Your task to perform on an android device: Set an alarm for 3pm Image 0: 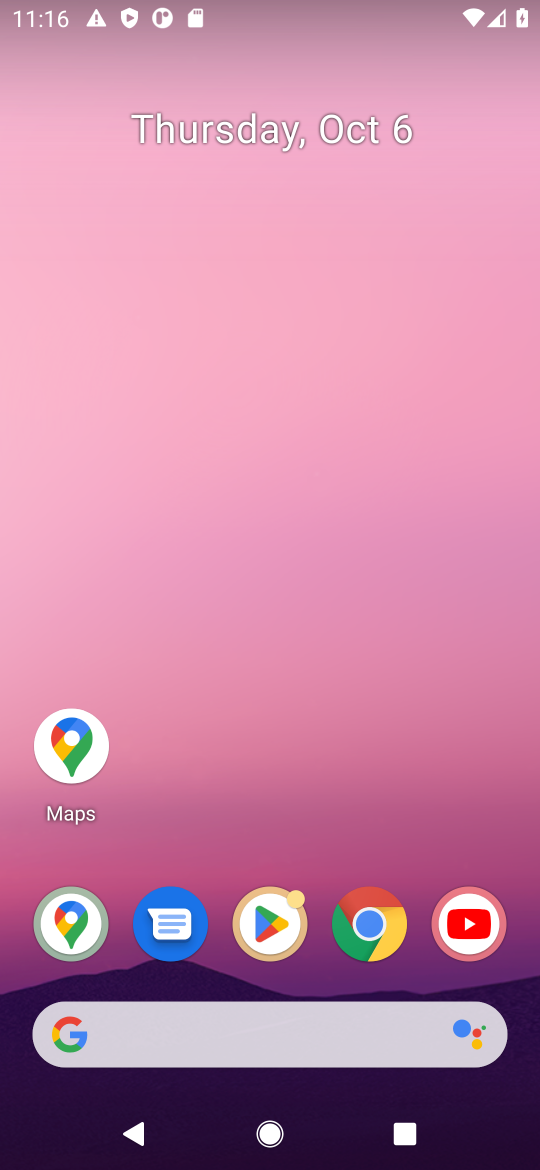
Step 0: drag from (299, 1050) to (485, 236)
Your task to perform on an android device: Set an alarm for 3pm Image 1: 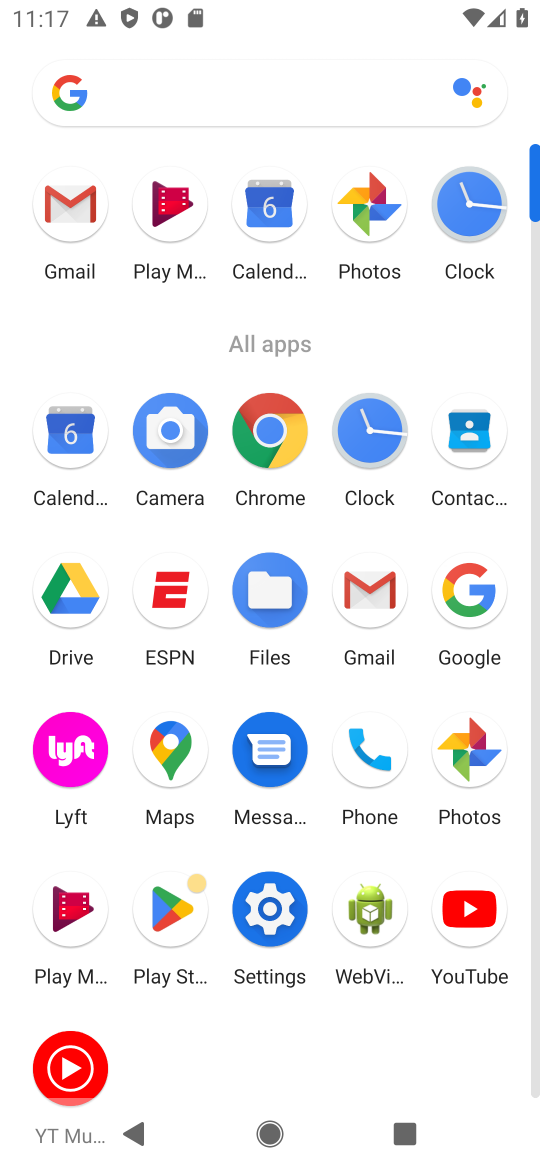
Step 1: click (370, 442)
Your task to perform on an android device: Set an alarm for 3pm Image 2: 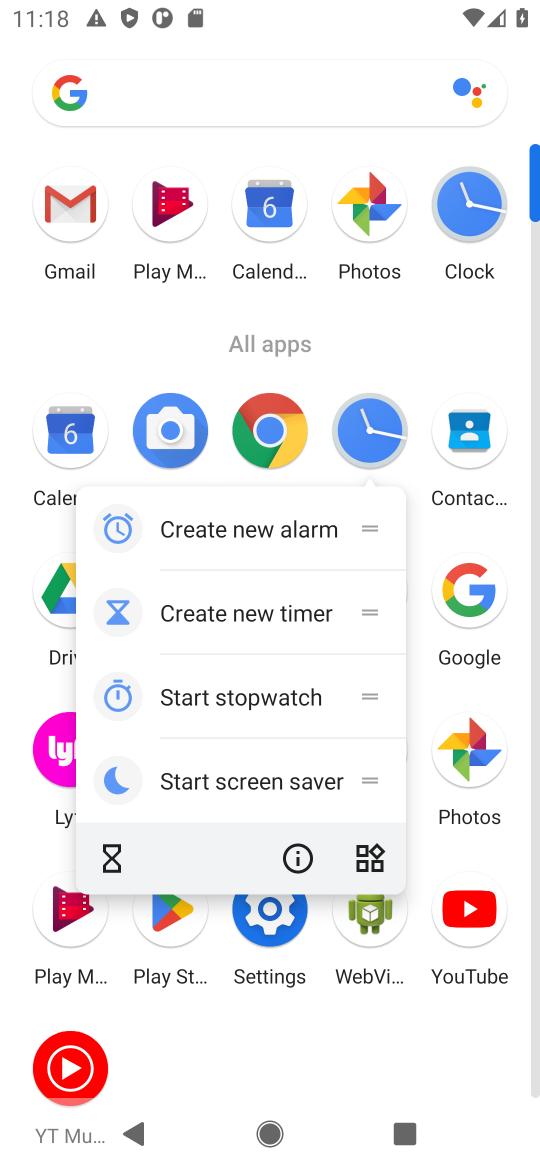
Step 2: click (372, 426)
Your task to perform on an android device: Set an alarm for 3pm Image 3: 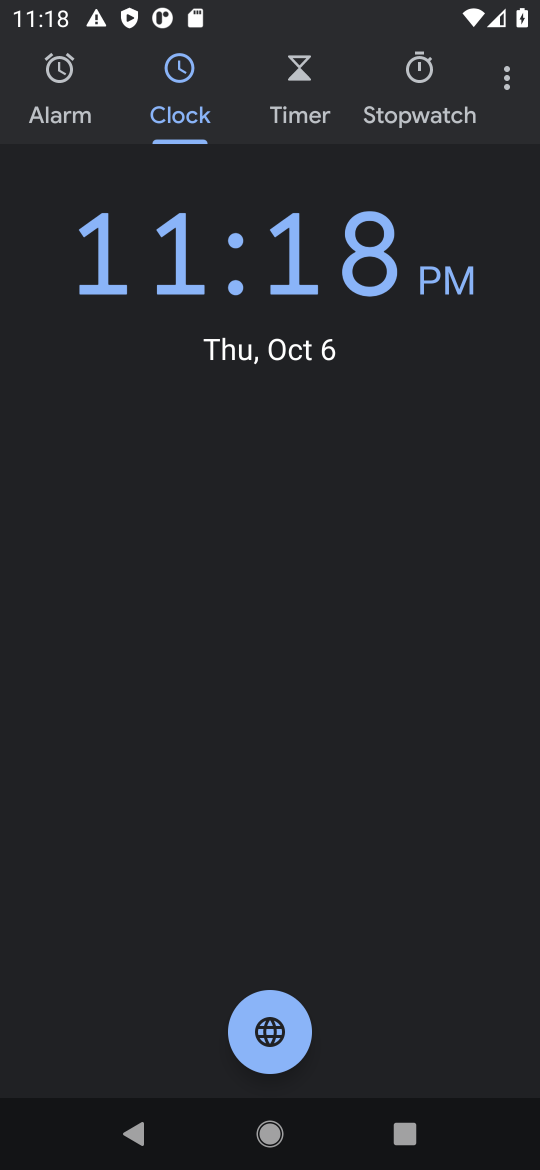
Step 3: click (75, 97)
Your task to perform on an android device: Set an alarm for 3pm Image 4: 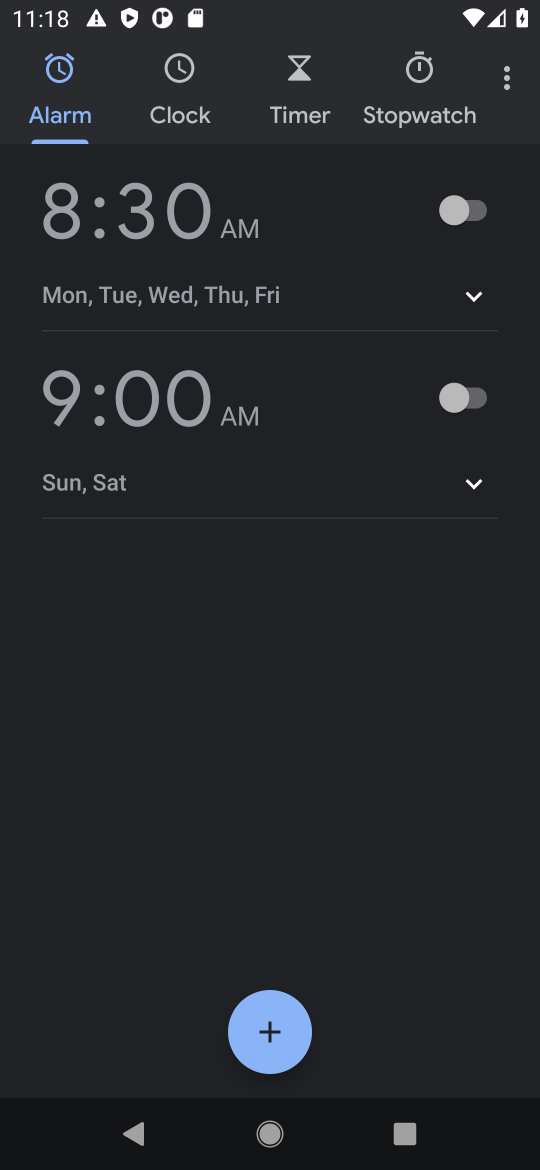
Step 4: click (125, 255)
Your task to perform on an android device: Set an alarm for 3pm Image 5: 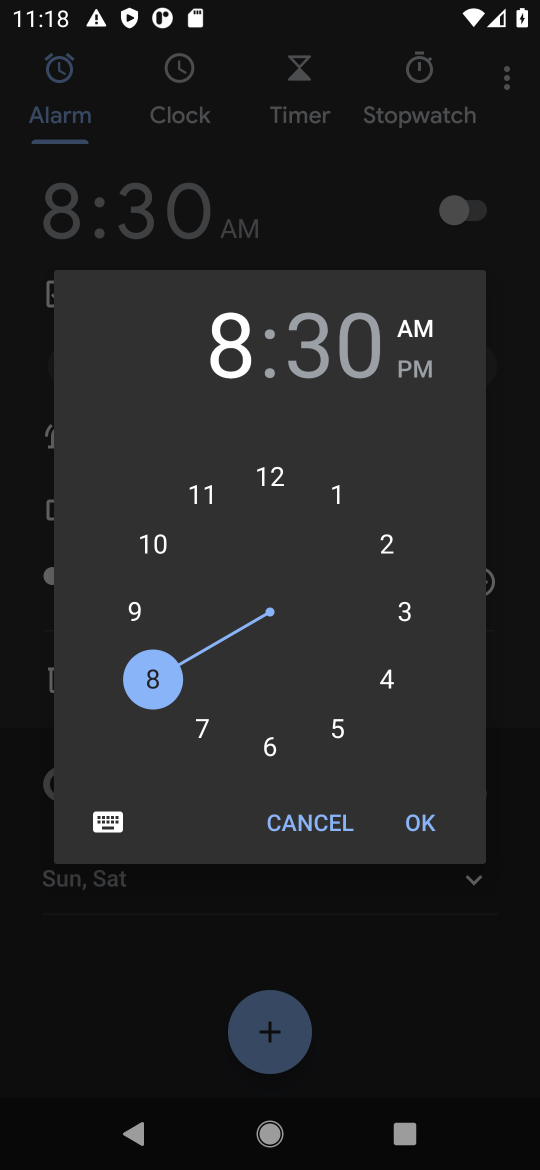
Step 5: drag from (154, 681) to (363, 616)
Your task to perform on an android device: Set an alarm for 3pm Image 6: 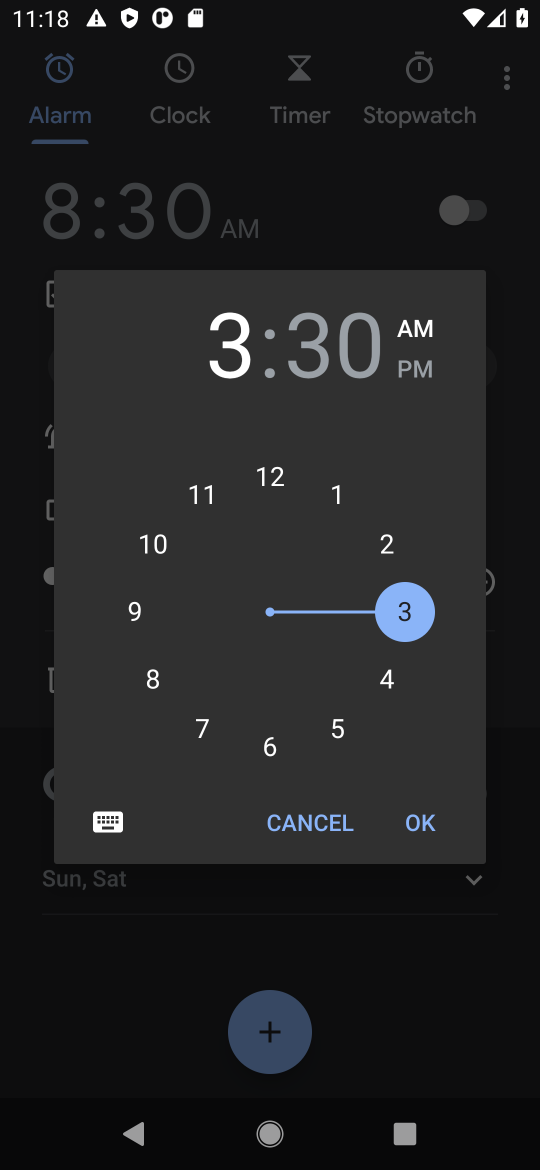
Step 6: click (341, 352)
Your task to perform on an android device: Set an alarm for 3pm Image 7: 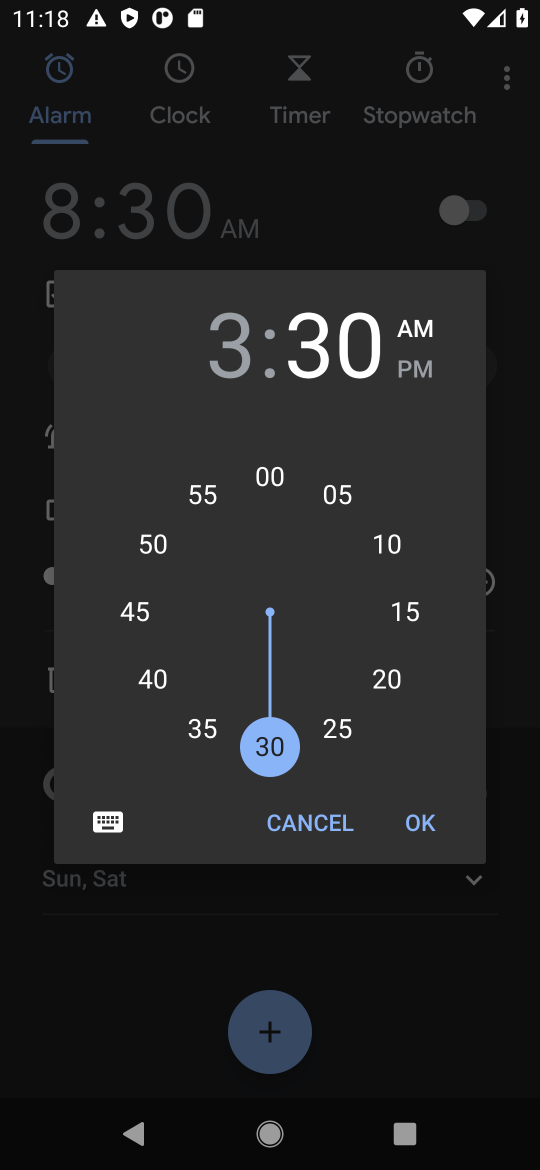
Step 7: drag from (272, 751) to (281, 471)
Your task to perform on an android device: Set an alarm for 3pm Image 8: 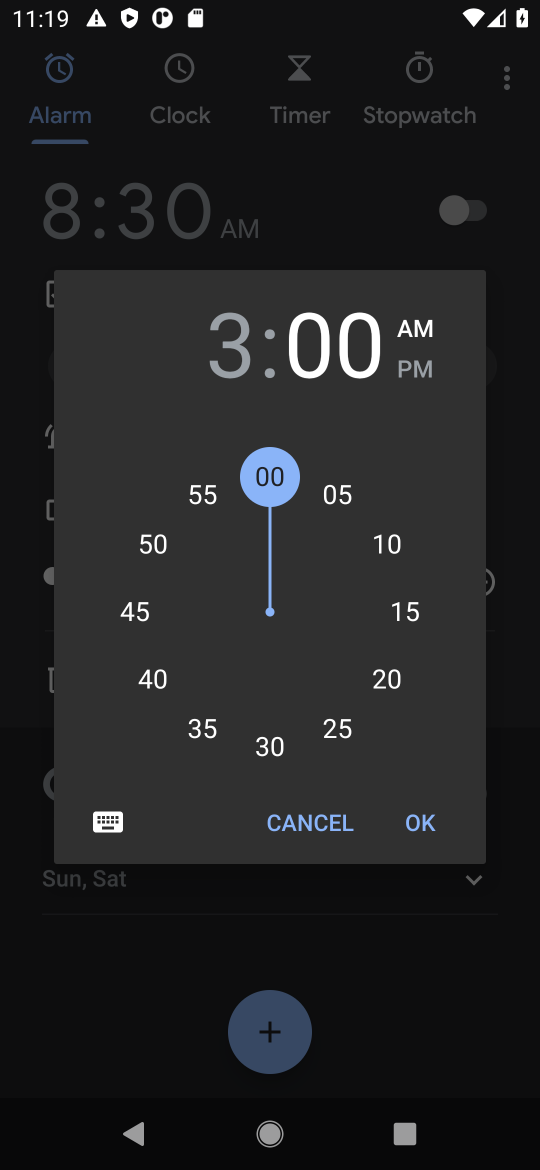
Step 8: click (418, 369)
Your task to perform on an android device: Set an alarm for 3pm Image 9: 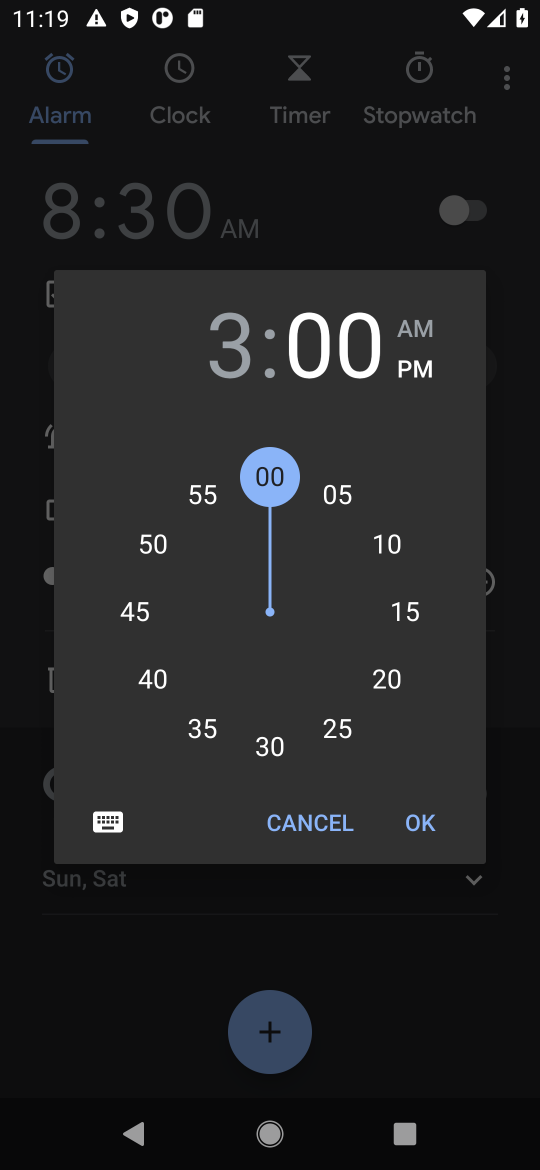
Step 9: click (420, 817)
Your task to perform on an android device: Set an alarm for 3pm Image 10: 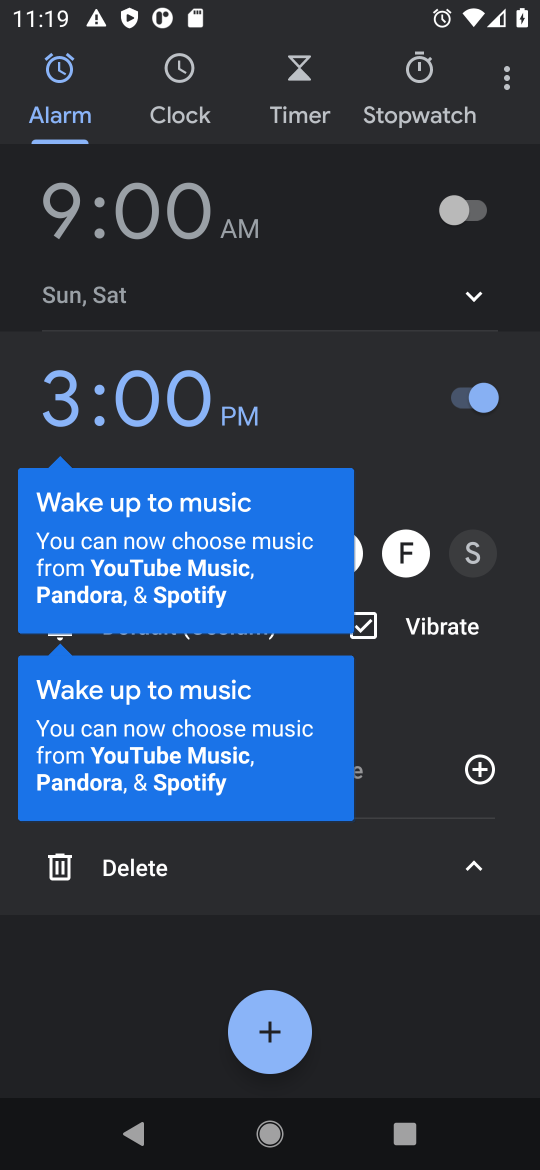
Step 10: task complete